Your task to perform on an android device: toggle notifications settings in the gmail app Image 0: 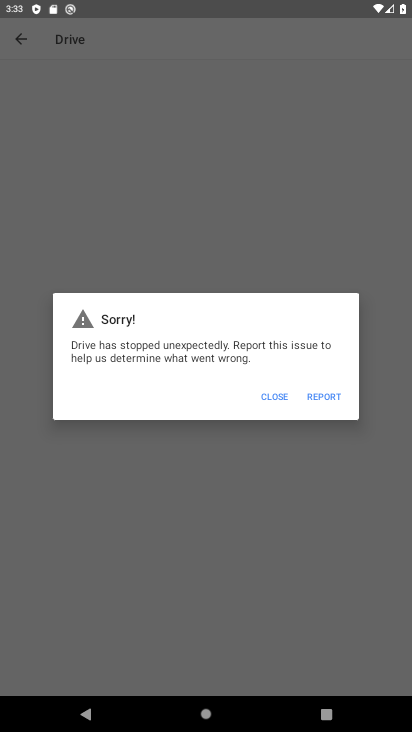
Step 0: press home button
Your task to perform on an android device: toggle notifications settings in the gmail app Image 1: 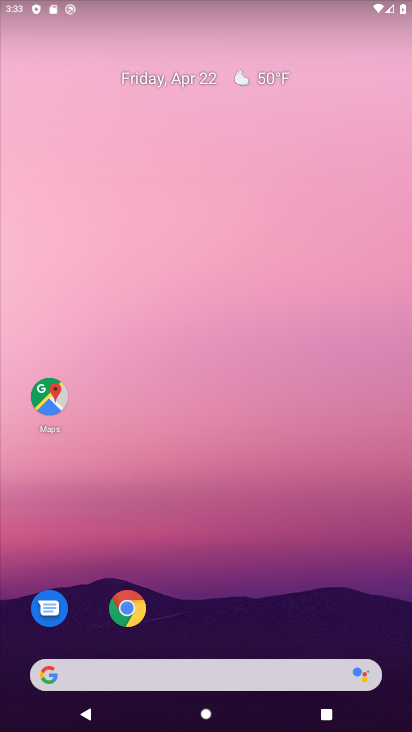
Step 1: drag from (217, 716) to (163, 94)
Your task to perform on an android device: toggle notifications settings in the gmail app Image 2: 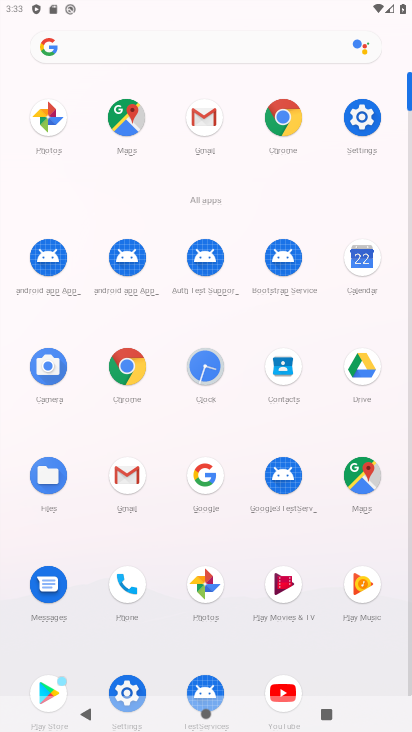
Step 2: click (199, 114)
Your task to perform on an android device: toggle notifications settings in the gmail app Image 3: 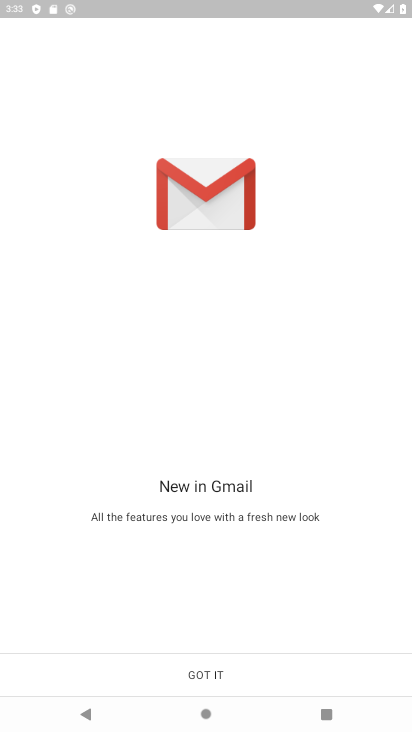
Step 3: click (202, 669)
Your task to perform on an android device: toggle notifications settings in the gmail app Image 4: 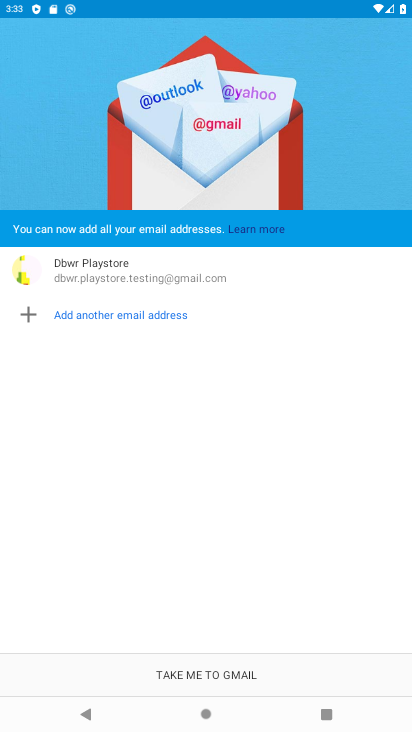
Step 4: click (210, 669)
Your task to perform on an android device: toggle notifications settings in the gmail app Image 5: 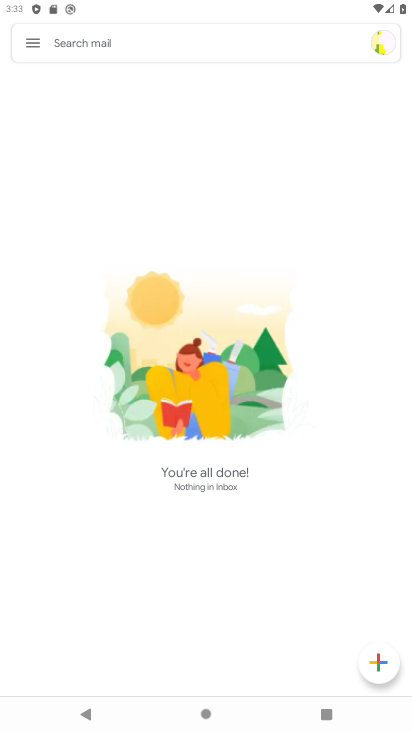
Step 5: click (31, 42)
Your task to perform on an android device: toggle notifications settings in the gmail app Image 6: 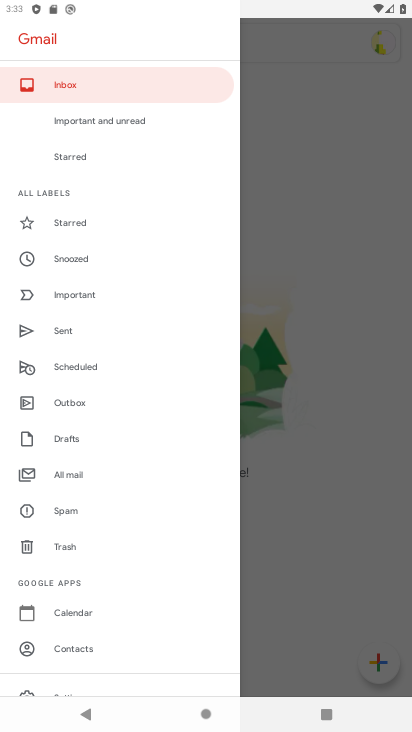
Step 6: drag from (89, 630) to (84, 256)
Your task to perform on an android device: toggle notifications settings in the gmail app Image 7: 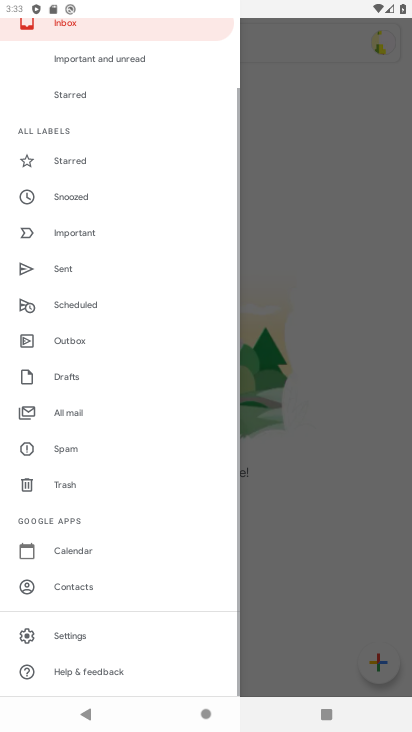
Step 7: click (64, 631)
Your task to perform on an android device: toggle notifications settings in the gmail app Image 8: 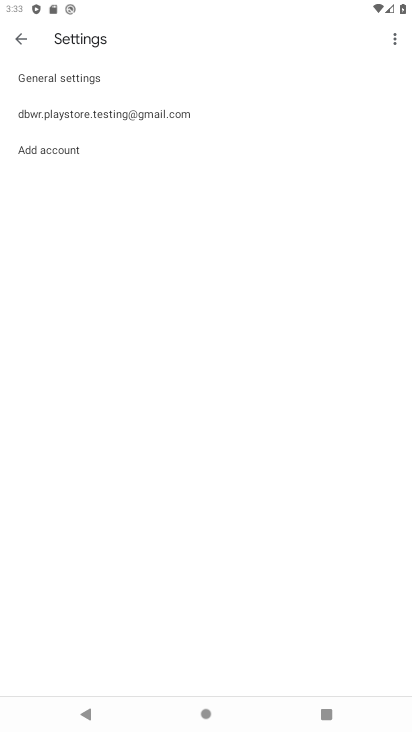
Step 8: click (153, 112)
Your task to perform on an android device: toggle notifications settings in the gmail app Image 9: 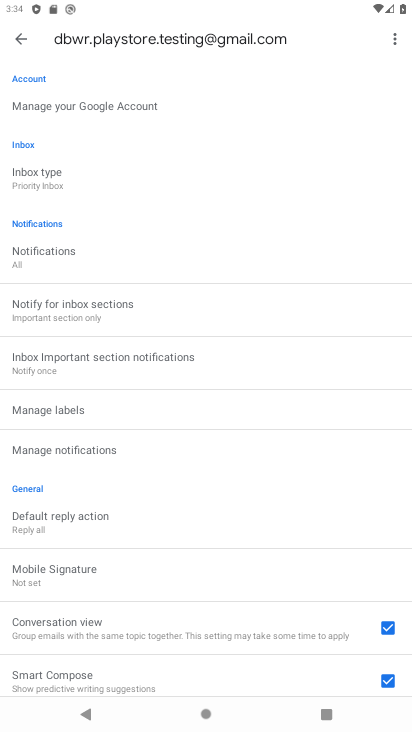
Step 9: click (47, 250)
Your task to perform on an android device: toggle notifications settings in the gmail app Image 10: 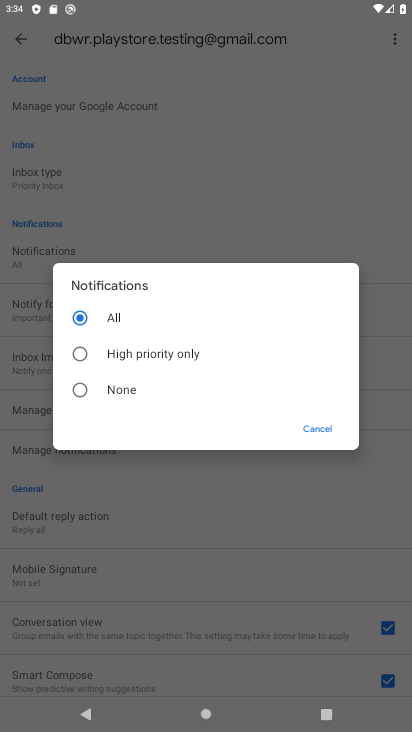
Step 10: click (80, 387)
Your task to perform on an android device: toggle notifications settings in the gmail app Image 11: 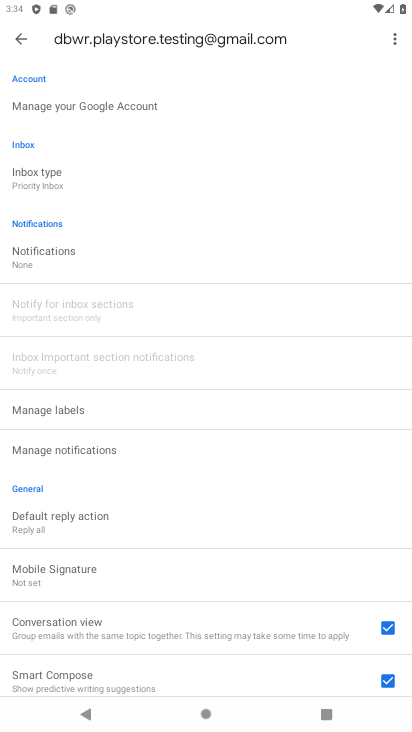
Step 11: task complete